Your task to perform on an android device: Go to notification settings Image 0: 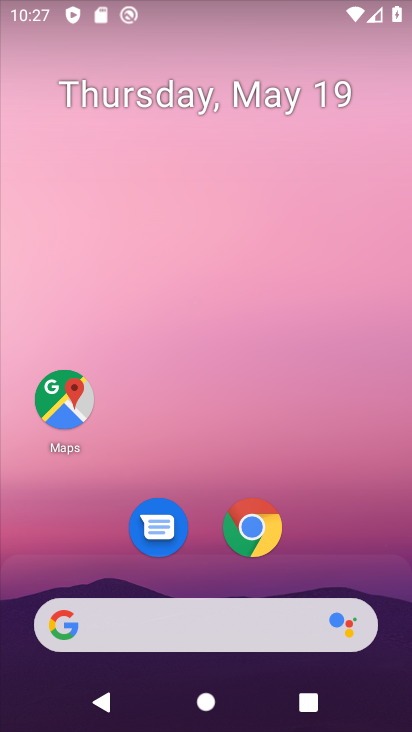
Step 0: drag from (206, 614) to (259, 87)
Your task to perform on an android device: Go to notification settings Image 1: 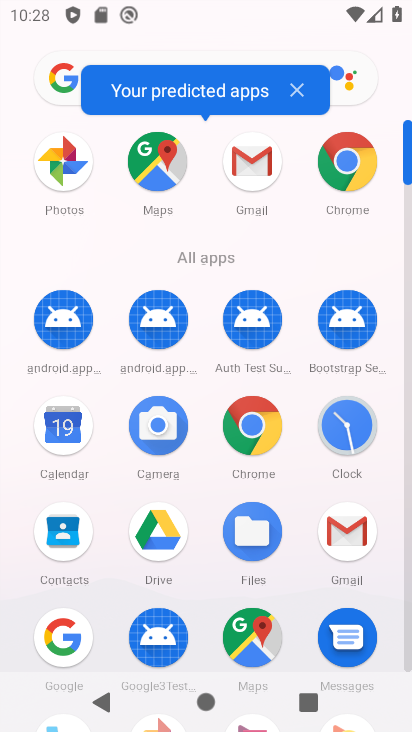
Step 1: drag from (190, 562) to (247, 136)
Your task to perform on an android device: Go to notification settings Image 2: 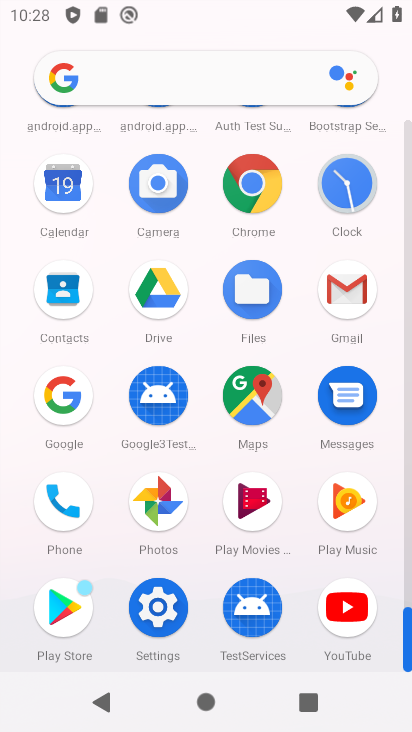
Step 2: click (167, 611)
Your task to perform on an android device: Go to notification settings Image 3: 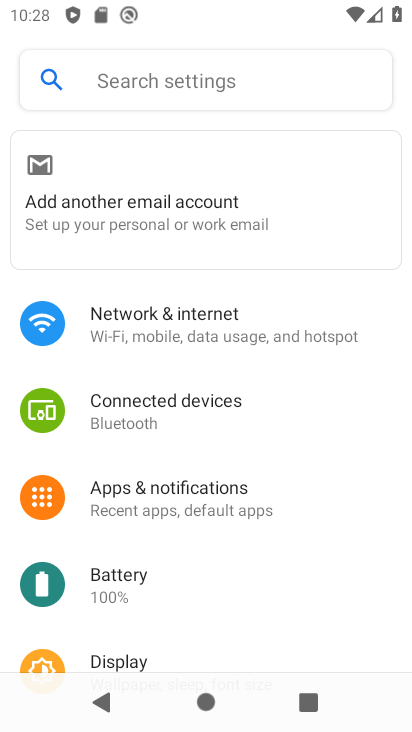
Step 3: click (219, 506)
Your task to perform on an android device: Go to notification settings Image 4: 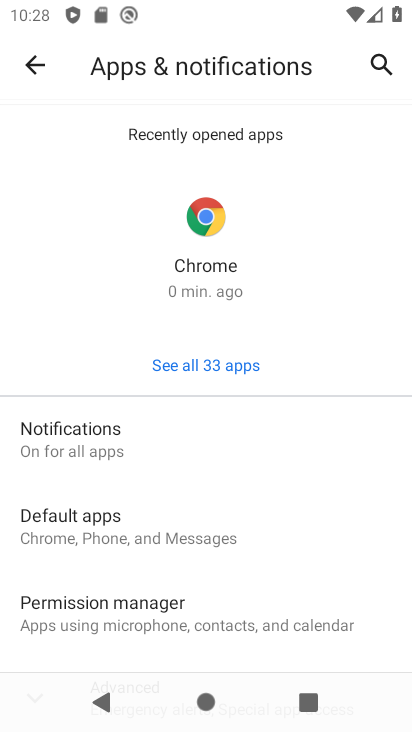
Step 4: click (117, 435)
Your task to perform on an android device: Go to notification settings Image 5: 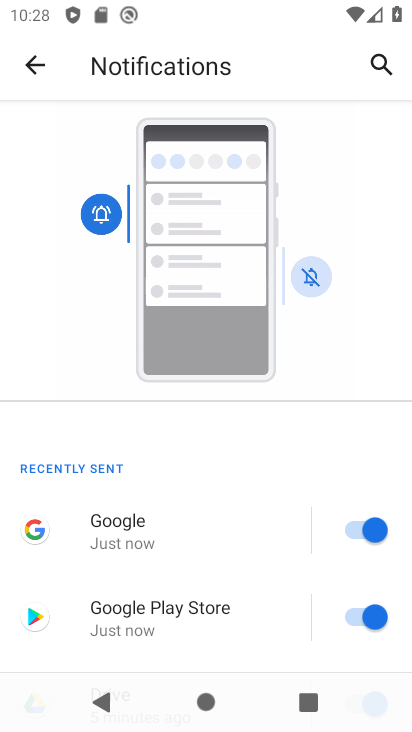
Step 5: task complete